Your task to perform on an android device: toggle translation in the chrome app Image 0: 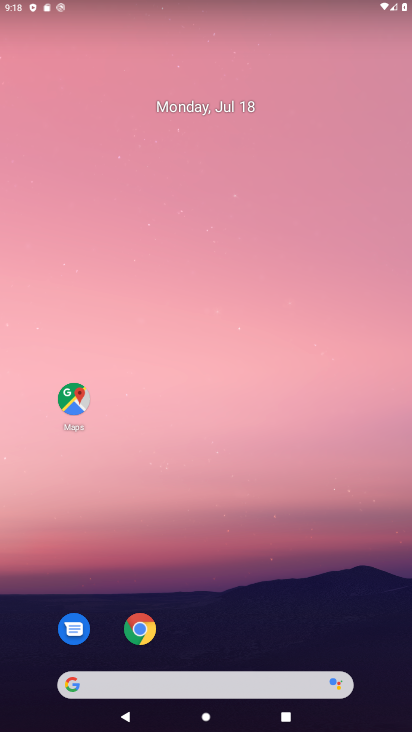
Step 0: click (142, 622)
Your task to perform on an android device: toggle translation in the chrome app Image 1: 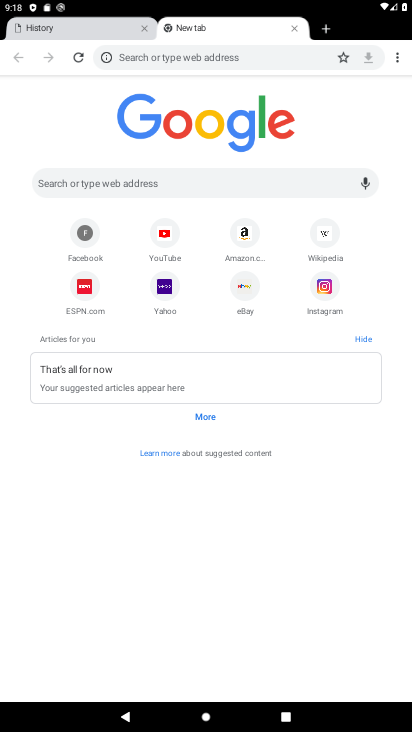
Step 1: drag from (397, 60) to (289, 265)
Your task to perform on an android device: toggle translation in the chrome app Image 2: 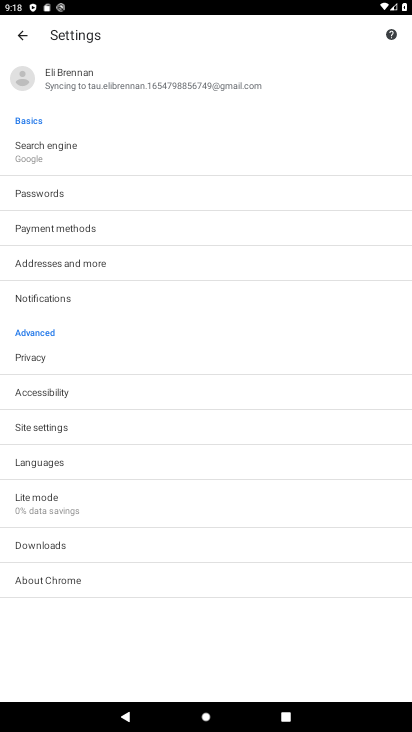
Step 2: click (97, 458)
Your task to perform on an android device: toggle translation in the chrome app Image 3: 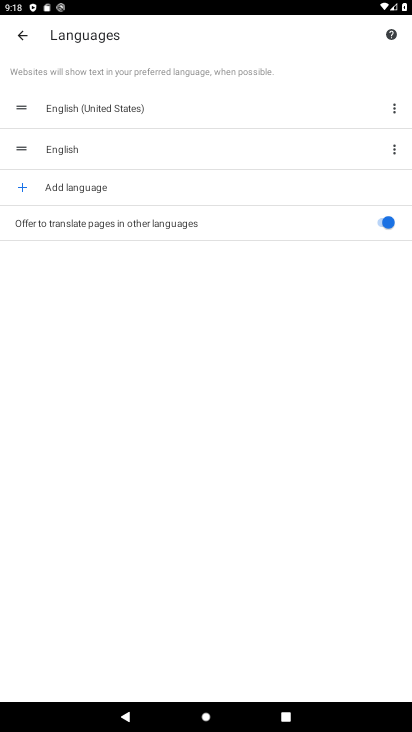
Step 3: click (380, 219)
Your task to perform on an android device: toggle translation in the chrome app Image 4: 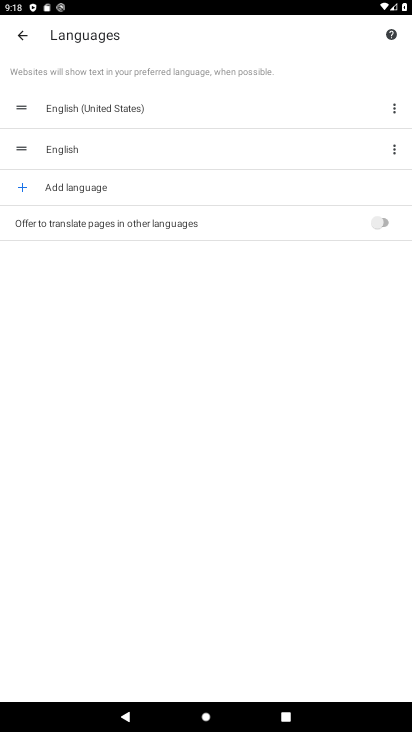
Step 4: task complete